Your task to perform on an android device: turn off improve location accuracy Image 0: 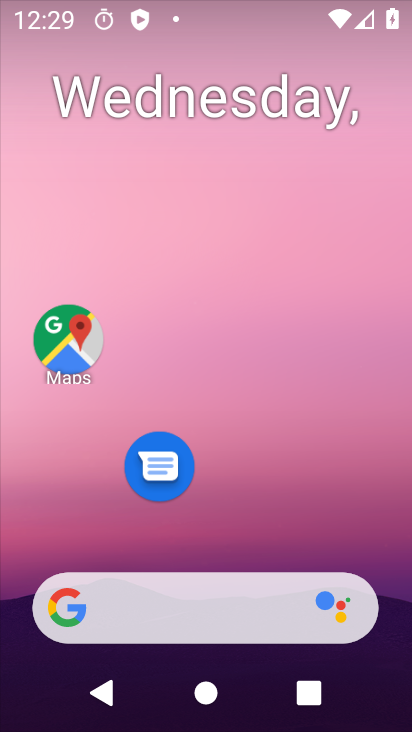
Step 0: drag from (245, 540) to (245, 74)
Your task to perform on an android device: turn off improve location accuracy Image 1: 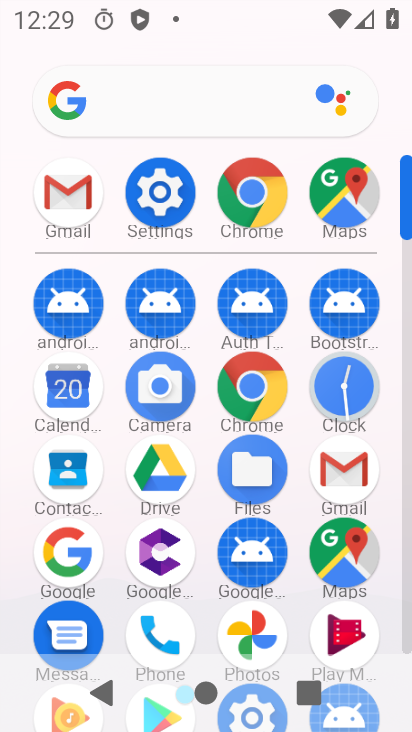
Step 1: click (177, 226)
Your task to perform on an android device: turn off improve location accuracy Image 2: 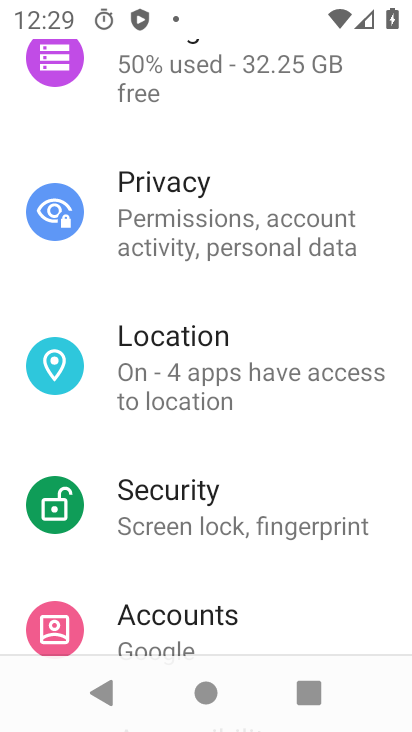
Step 2: click (242, 388)
Your task to perform on an android device: turn off improve location accuracy Image 3: 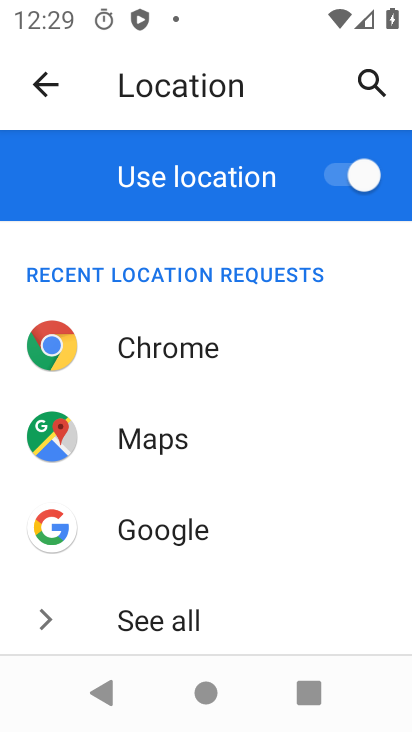
Step 3: drag from (178, 520) to (239, 149)
Your task to perform on an android device: turn off improve location accuracy Image 4: 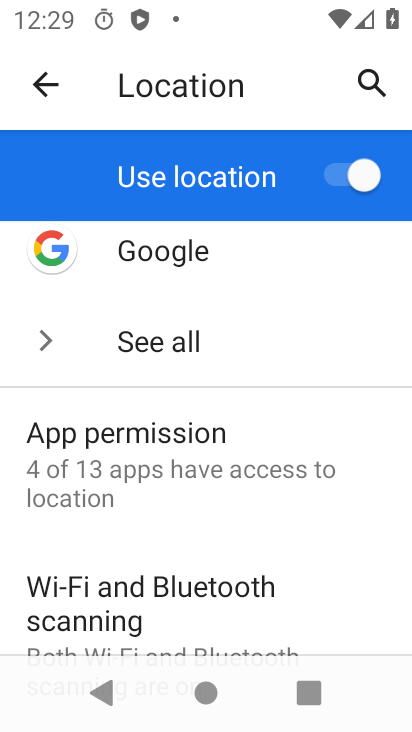
Step 4: drag from (176, 594) to (189, 392)
Your task to perform on an android device: turn off improve location accuracy Image 5: 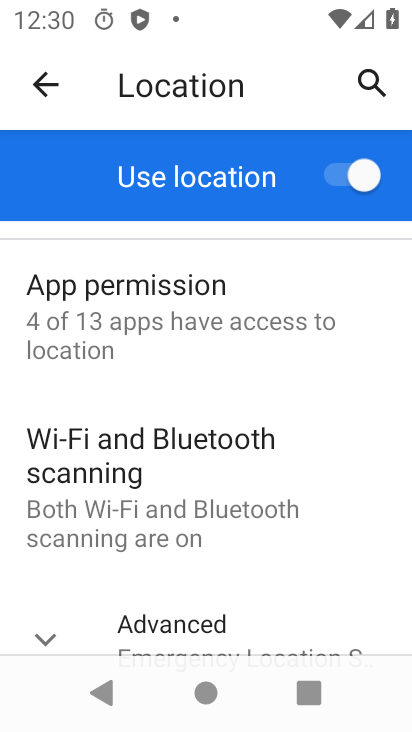
Step 5: click (181, 619)
Your task to perform on an android device: turn off improve location accuracy Image 6: 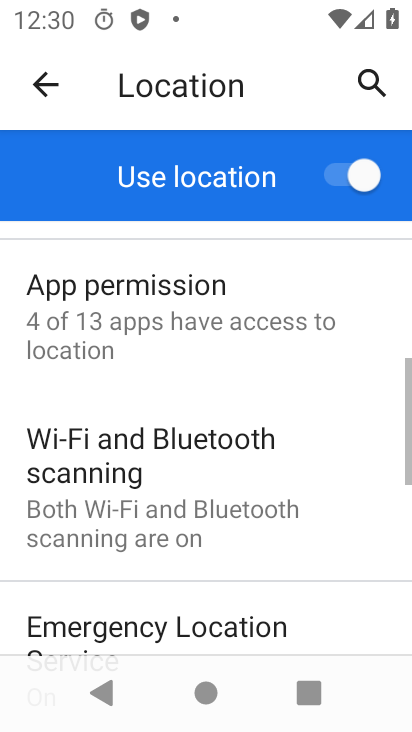
Step 6: drag from (190, 571) to (231, 366)
Your task to perform on an android device: turn off improve location accuracy Image 7: 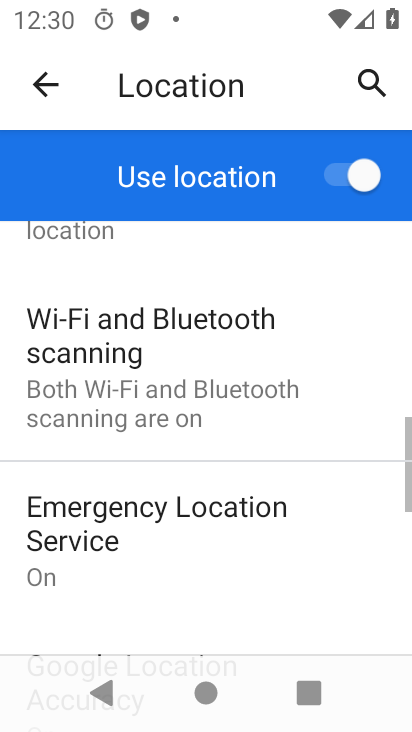
Step 7: click (231, 366)
Your task to perform on an android device: turn off improve location accuracy Image 8: 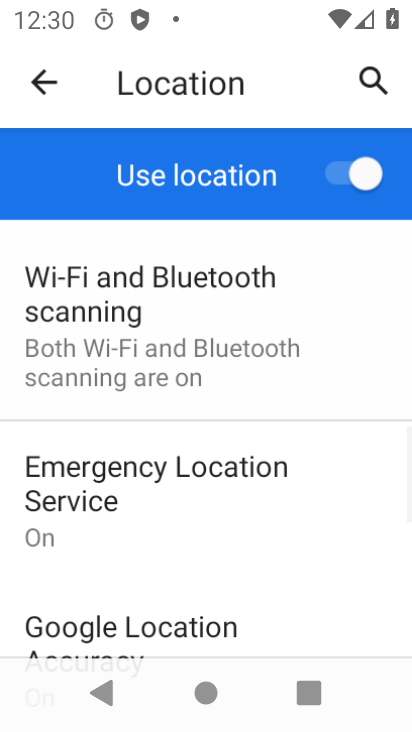
Step 8: drag from (199, 585) to (228, 379)
Your task to perform on an android device: turn off improve location accuracy Image 9: 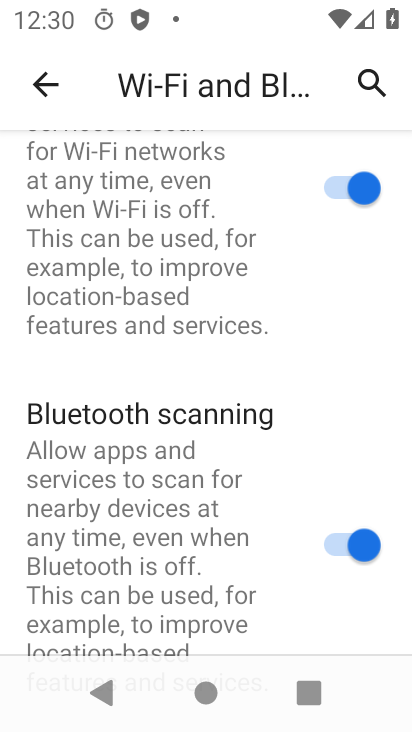
Step 9: drag from (178, 310) to (160, 725)
Your task to perform on an android device: turn off improve location accuracy Image 10: 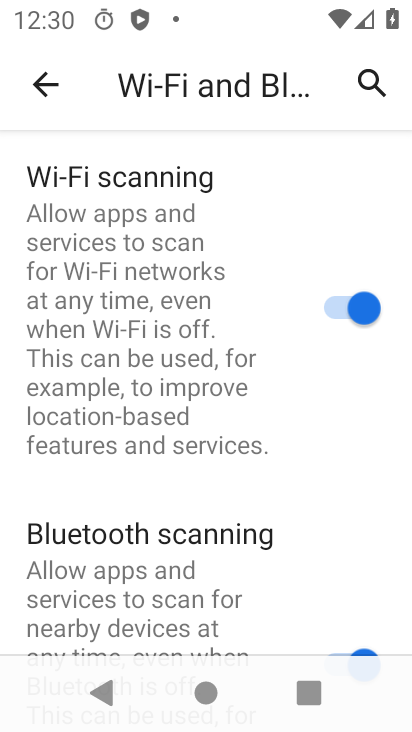
Step 10: click (40, 76)
Your task to perform on an android device: turn off improve location accuracy Image 11: 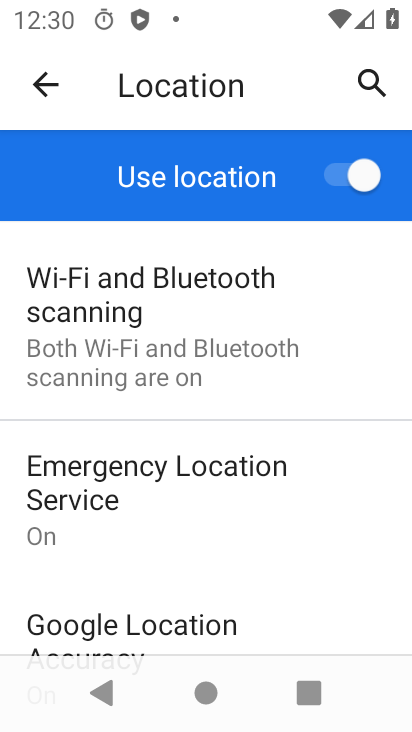
Step 11: drag from (219, 170) to (189, 507)
Your task to perform on an android device: turn off improve location accuracy Image 12: 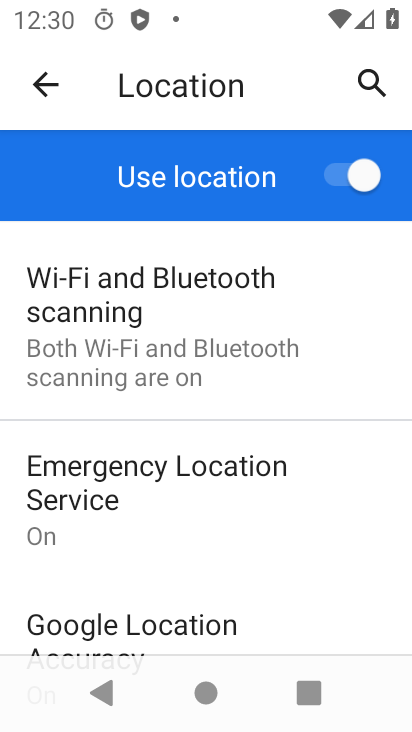
Step 12: drag from (189, 382) to (189, 576)
Your task to perform on an android device: turn off improve location accuracy Image 13: 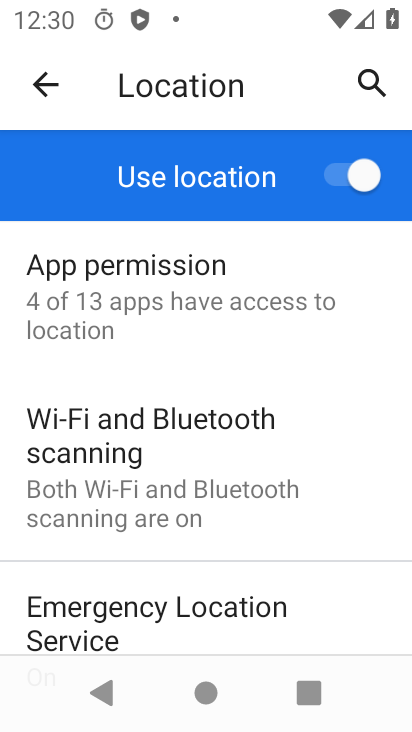
Step 13: click (139, 325)
Your task to perform on an android device: turn off improve location accuracy Image 14: 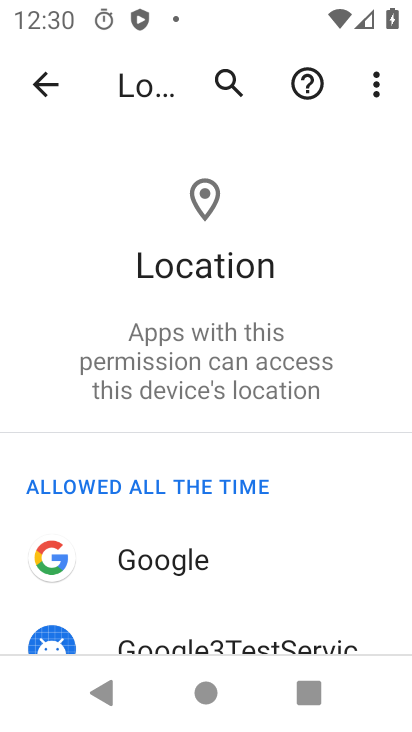
Step 14: task complete